Your task to perform on an android device: remove spam from my inbox in the gmail app Image 0: 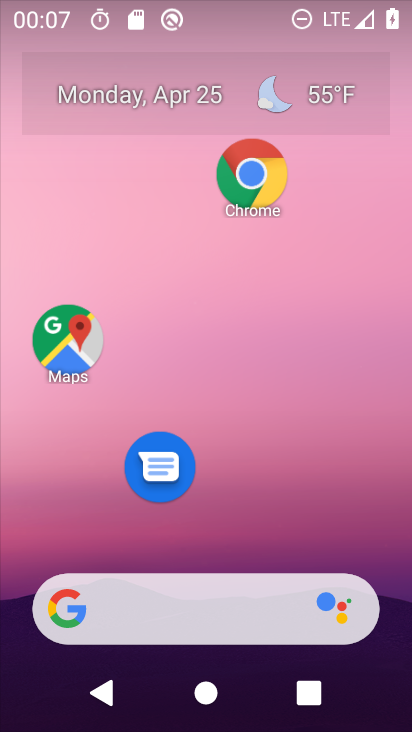
Step 0: drag from (248, 519) to (185, 52)
Your task to perform on an android device: remove spam from my inbox in the gmail app Image 1: 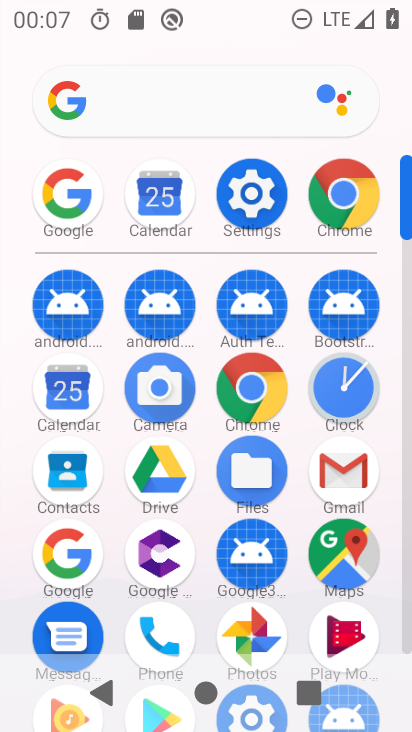
Step 1: click (342, 476)
Your task to perform on an android device: remove spam from my inbox in the gmail app Image 2: 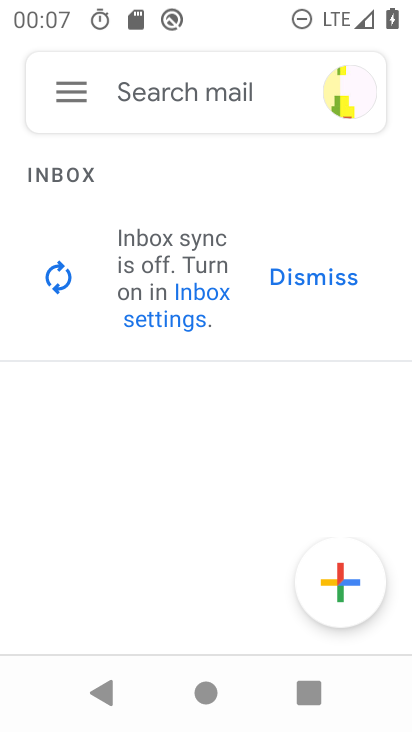
Step 2: click (61, 99)
Your task to perform on an android device: remove spam from my inbox in the gmail app Image 3: 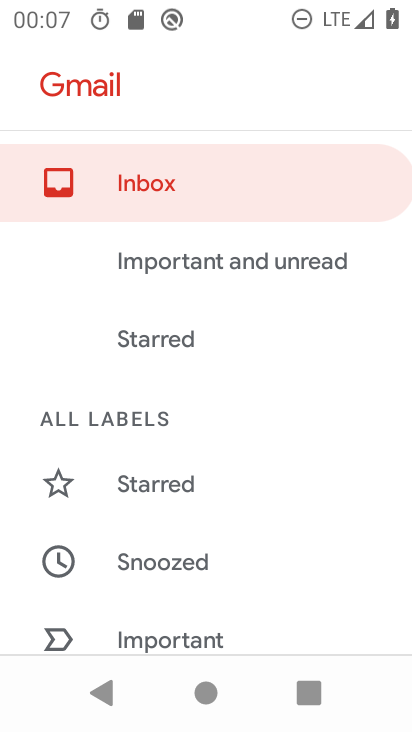
Step 3: drag from (197, 486) to (241, 319)
Your task to perform on an android device: remove spam from my inbox in the gmail app Image 4: 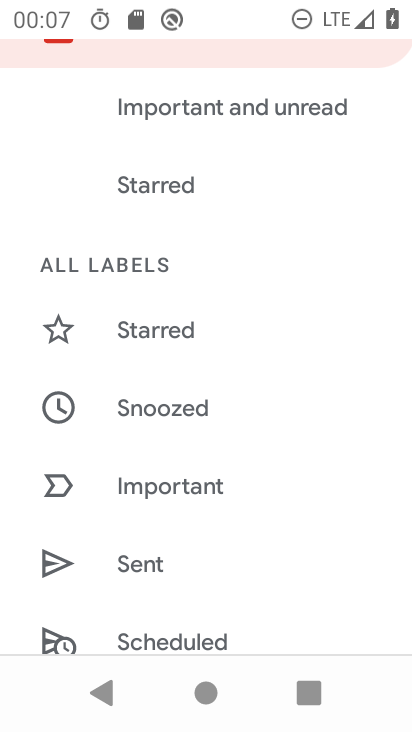
Step 4: drag from (249, 577) to (295, 158)
Your task to perform on an android device: remove spam from my inbox in the gmail app Image 5: 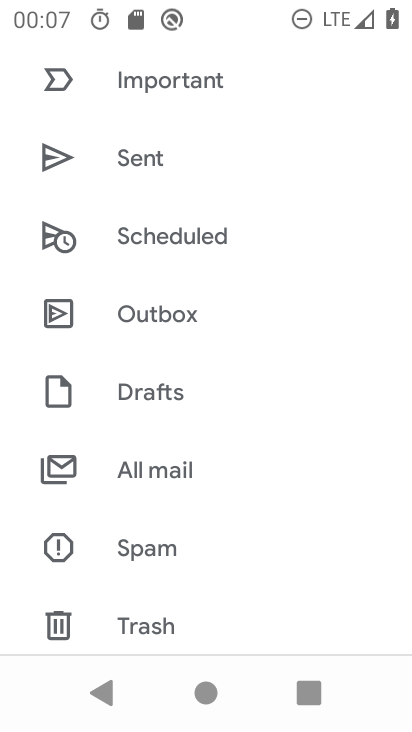
Step 5: click (173, 554)
Your task to perform on an android device: remove spam from my inbox in the gmail app Image 6: 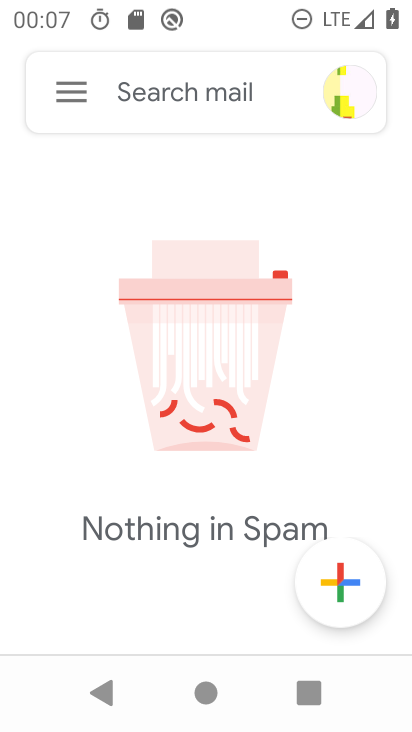
Step 6: task complete